Your task to perform on an android device: Open Youtube and go to the subscriptions tab Image 0: 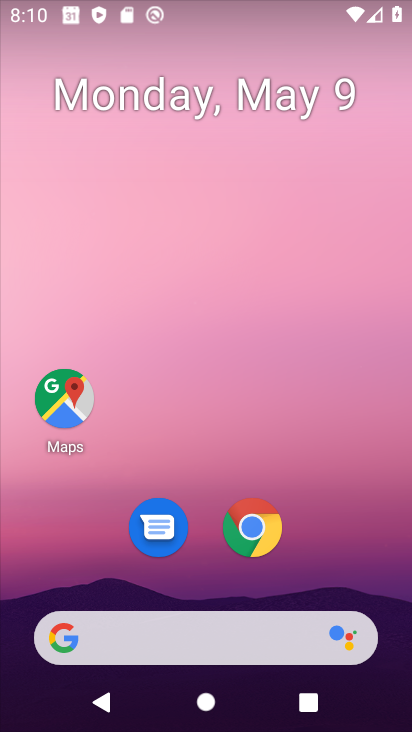
Step 0: drag from (211, 595) to (249, 118)
Your task to perform on an android device: Open Youtube and go to the subscriptions tab Image 1: 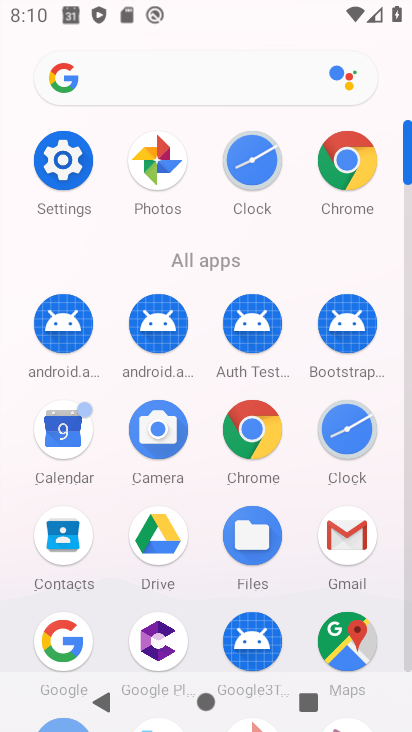
Step 1: drag from (203, 604) to (245, 245)
Your task to perform on an android device: Open Youtube and go to the subscriptions tab Image 2: 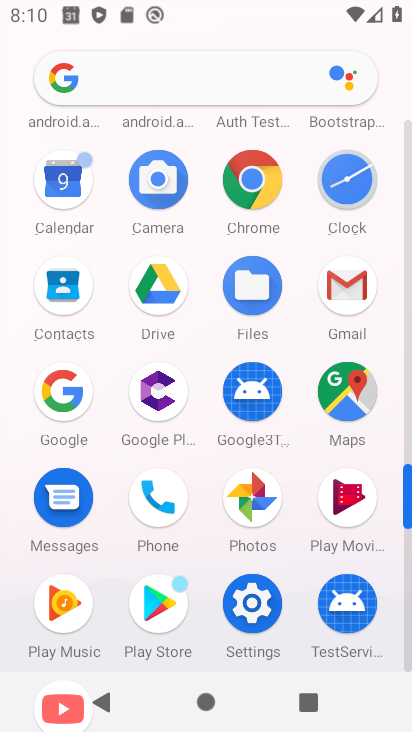
Step 2: drag from (112, 618) to (139, 281)
Your task to perform on an android device: Open Youtube and go to the subscriptions tab Image 3: 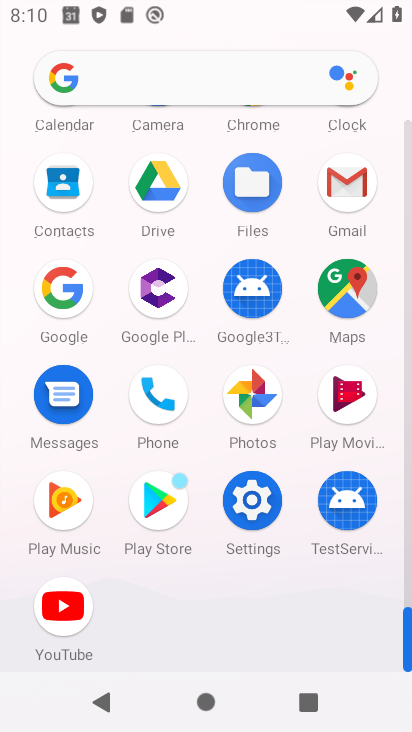
Step 3: click (57, 598)
Your task to perform on an android device: Open Youtube and go to the subscriptions tab Image 4: 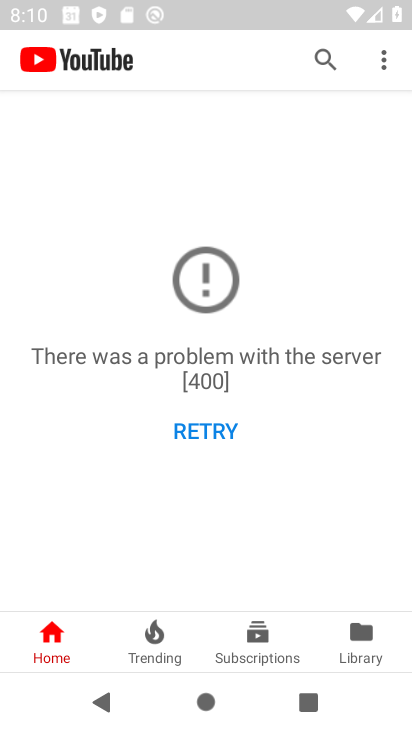
Step 4: click (258, 628)
Your task to perform on an android device: Open Youtube and go to the subscriptions tab Image 5: 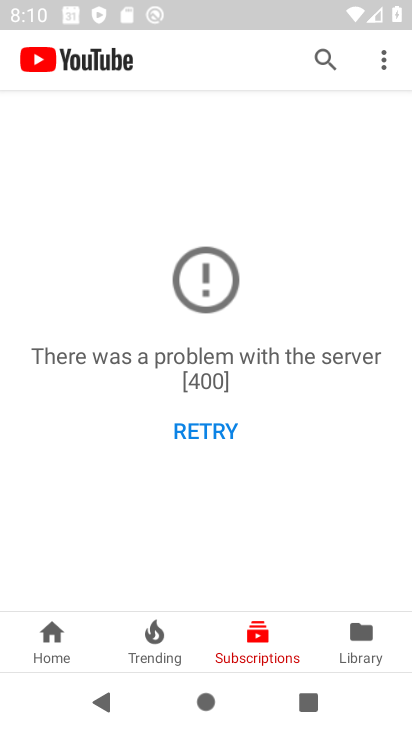
Step 5: task complete